Your task to perform on an android device: change the clock display to digital Image 0: 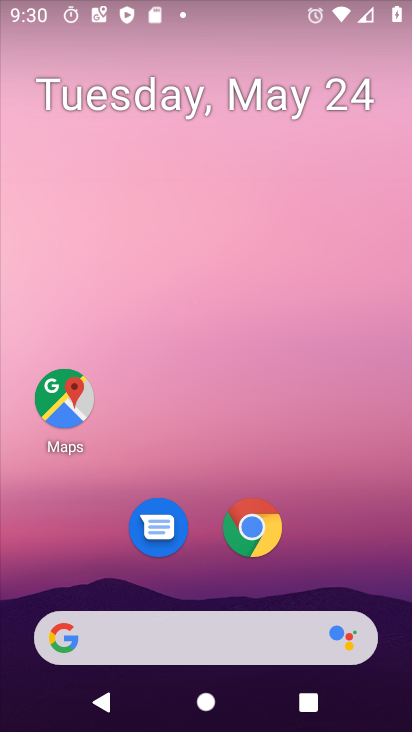
Step 0: drag from (398, 706) to (325, 279)
Your task to perform on an android device: change the clock display to digital Image 1: 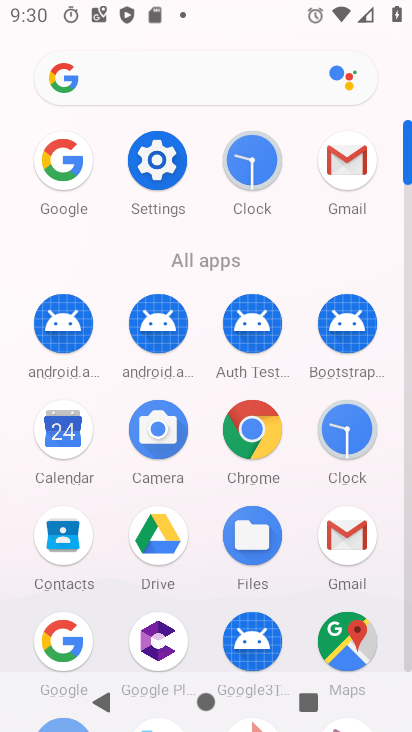
Step 1: click (344, 408)
Your task to perform on an android device: change the clock display to digital Image 2: 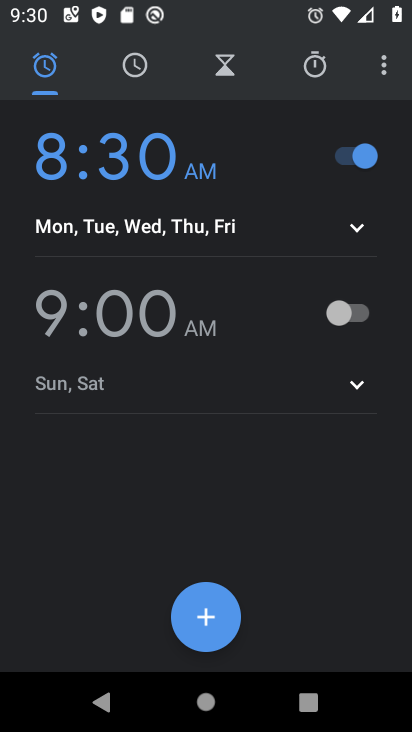
Step 2: press home button
Your task to perform on an android device: change the clock display to digital Image 3: 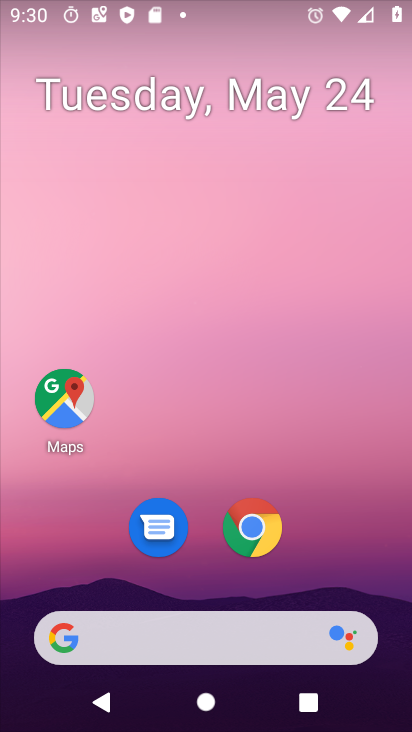
Step 3: drag from (386, 695) to (307, 130)
Your task to perform on an android device: change the clock display to digital Image 4: 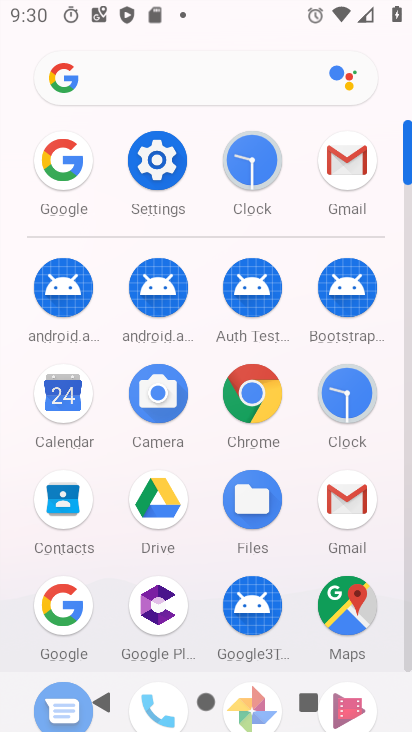
Step 4: click (340, 395)
Your task to perform on an android device: change the clock display to digital Image 5: 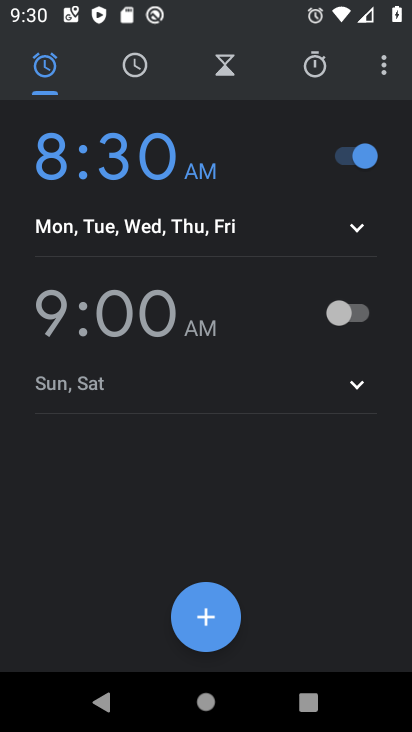
Step 5: click (385, 75)
Your task to perform on an android device: change the clock display to digital Image 6: 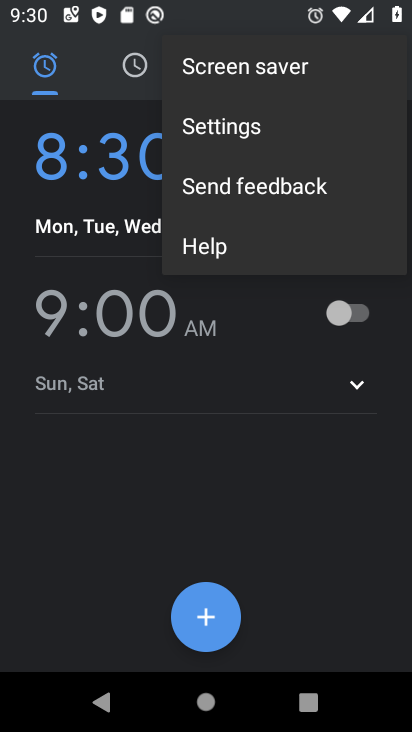
Step 6: click (227, 709)
Your task to perform on an android device: change the clock display to digital Image 7: 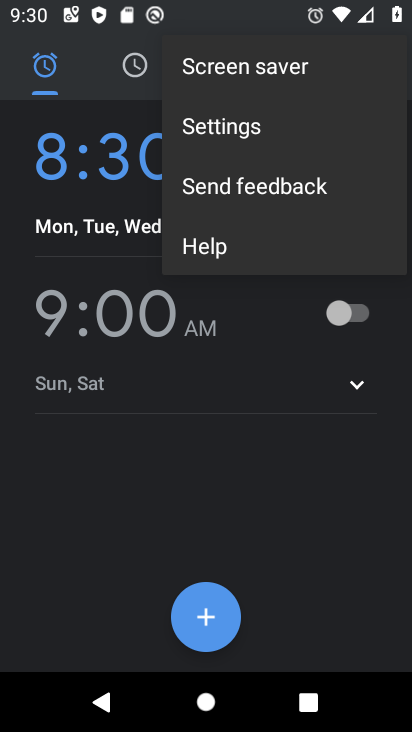
Step 7: click (211, 122)
Your task to perform on an android device: change the clock display to digital Image 8: 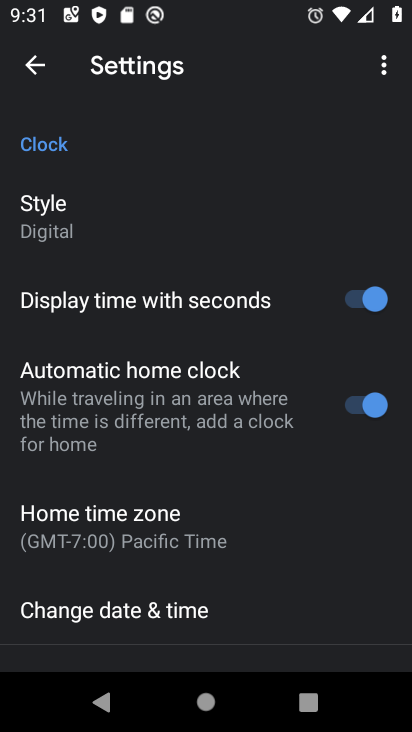
Step 8: task complete